Your task to perform on an android device: turn off priority inbox in the gmail app Image 0: 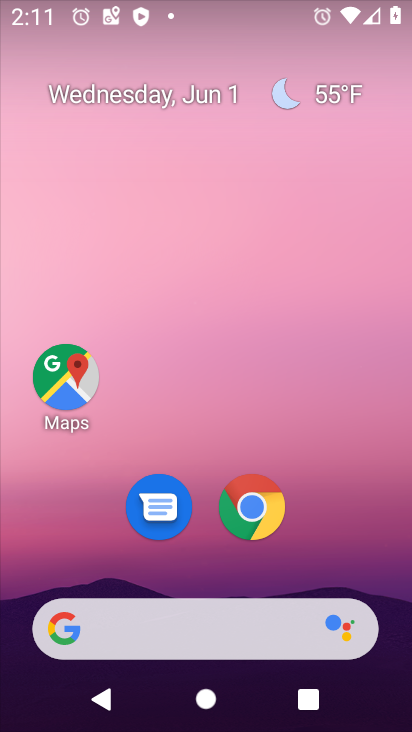
Step 0: drag from (369, 596) to (354, 0)
Your task to perform on an android device: turn off priority inbox in the gmail app Image 1: 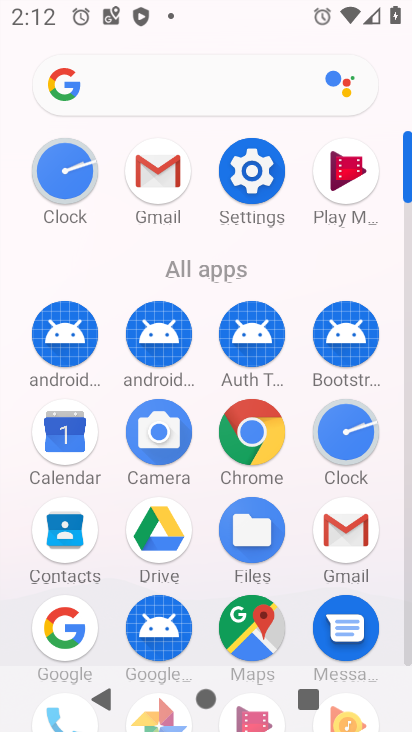
Step 1: click (157, 172)
Your task to perform on an android device: turn off priority inbox in the gmail app Image 2: 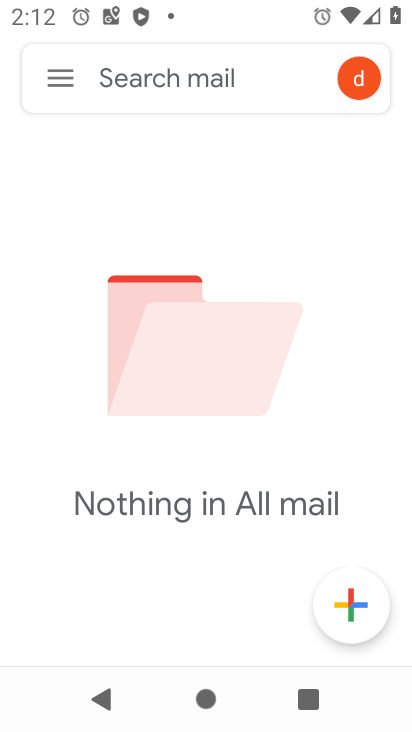
Step 2: click (63, 84)
Your task to perform on an android device: turn off priority inbox in the gmail app Image 3: 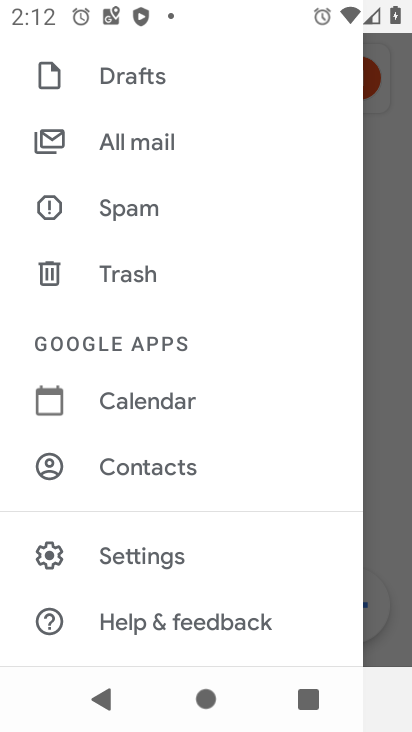
Step 3: click (140, 554)
Your task to perform on an android device: turn off priority inbox in the gmail app Image 4: 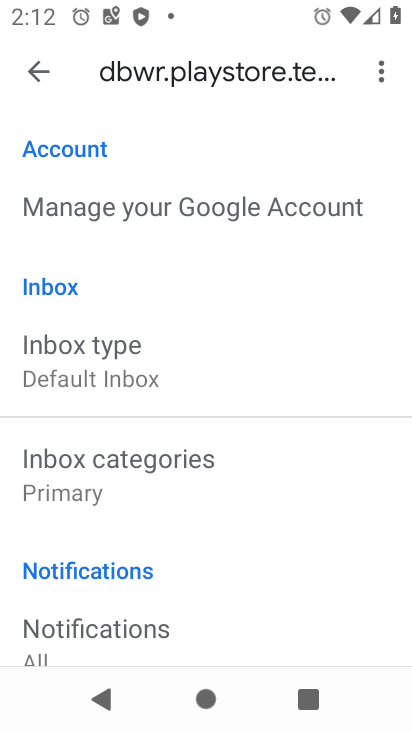
Step 4: click (61, 378)
Your task to perform on an android device: turn off priority inbox in the gmail app Image 5: 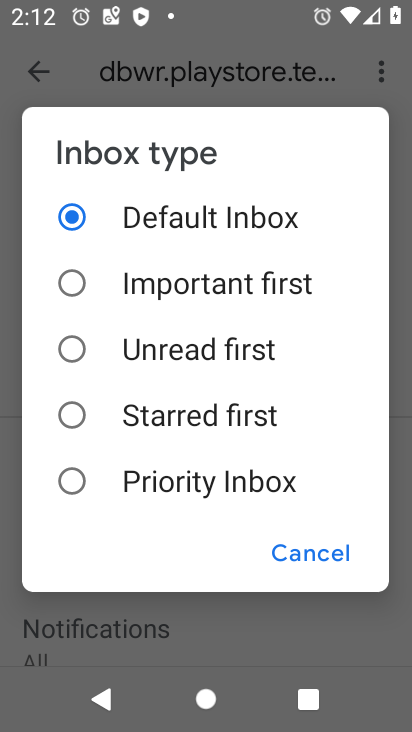
Step 5: task complete